Your task to perform on an android device: Is it going to rain this weekend? Image 0: 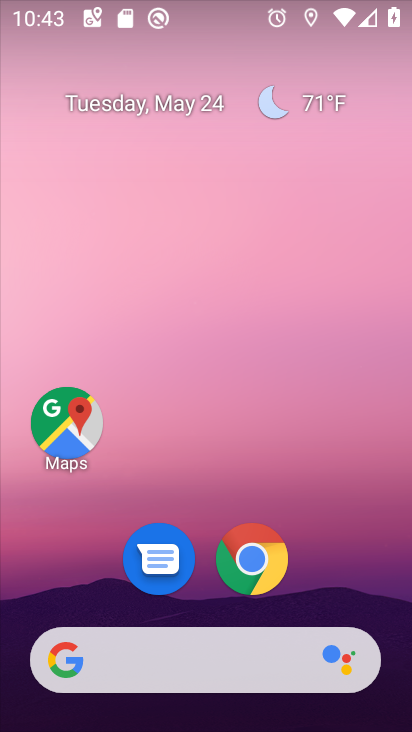
Step 0: drag from (398, 653) to (172, 37)
Your task to perform on an android device: Is it going to rain this weekend? Image 1: 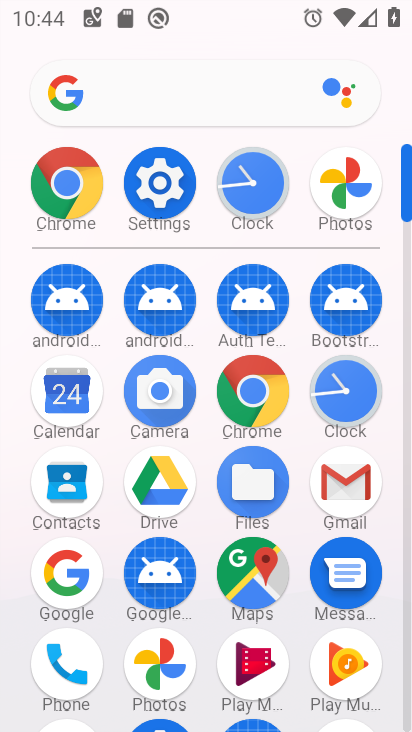
Step 1: click (63, 569)
Your task to perform on an android device: Is it going to rain this weekend? Image 2: 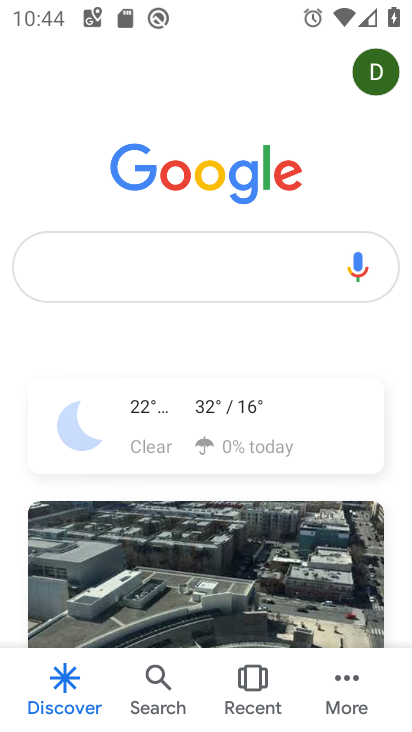
Step 2: click (117, 278)
Your task to perform on an android device: Is it going to rain this weekend? Image 3: 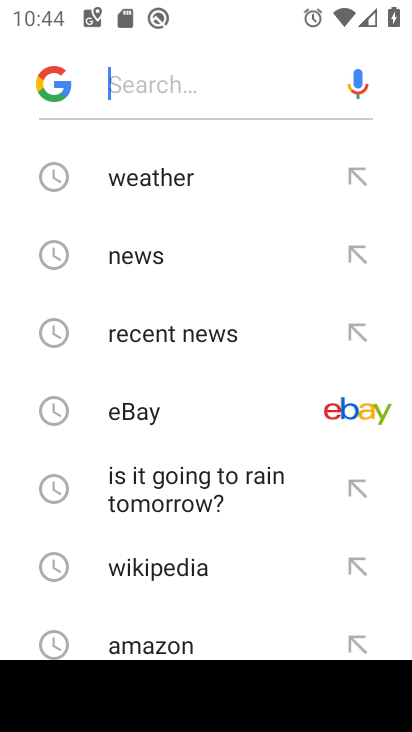
Step 3: drag from (52, 569) to (162, 128)
Your task to perform on an android device: Is it going to rain this weekend? Image 4: 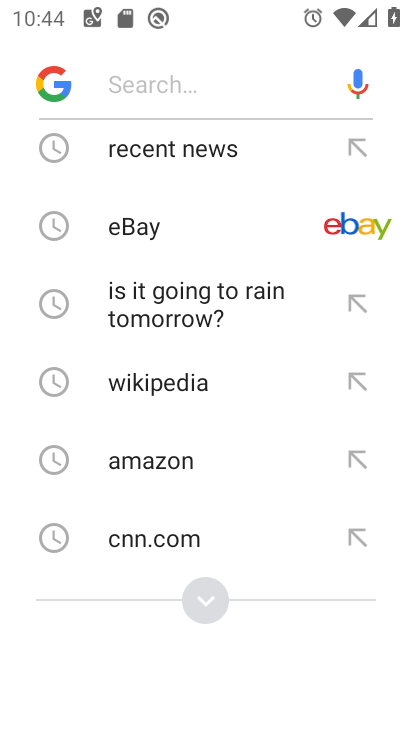
Step 4: click (205, 591)
Your task to perform on an android device: Is it going to rain this weekend? Image 5: 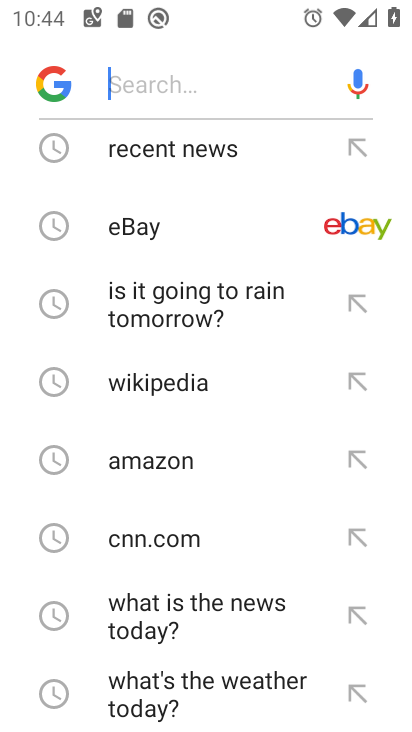
Step 5: drag from (136, 650) to (189, 221)
Your task to perform on an android device: Is it going to rain this weekend? Image 6: 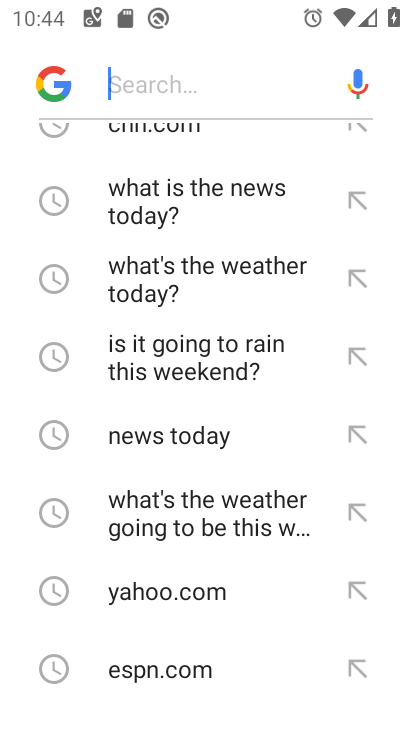
Step 6: click (195, 382)
Your task to perform on an android device: Is it going to rain this weekend? Image 7: 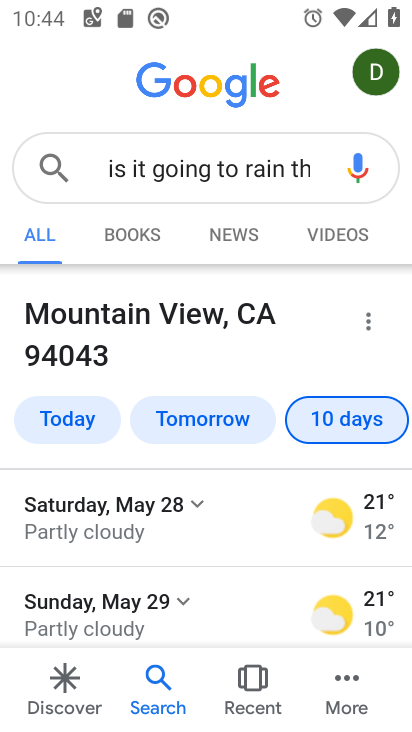
Step 7: task complete